Your task to perform on an android device: turn on translation in the chrome app Image 0: 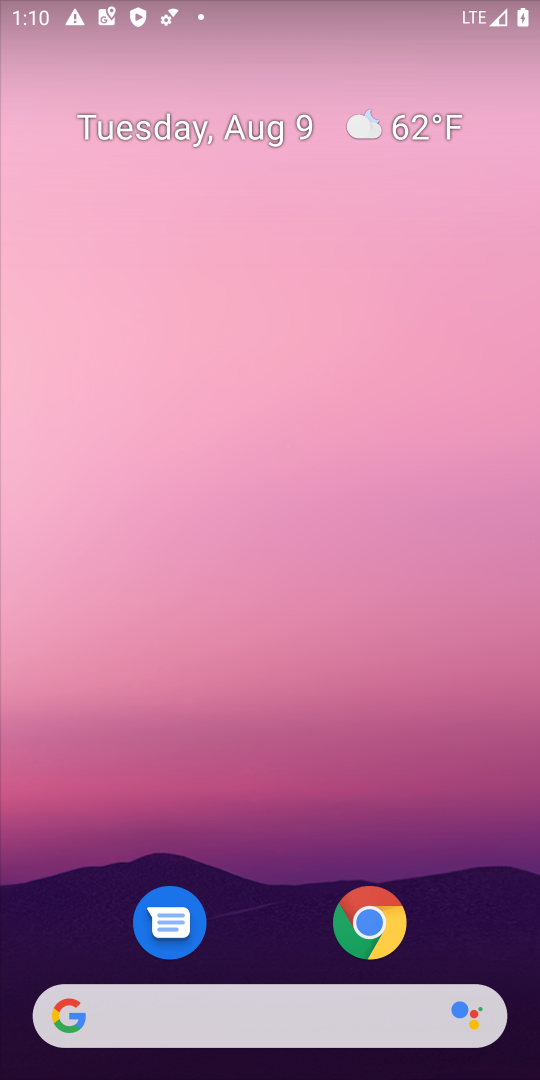
Step 0: drag from (289, 916) to (166, 121)
Your task to perform on an android device: turn on translation in the chrome app Image 1: 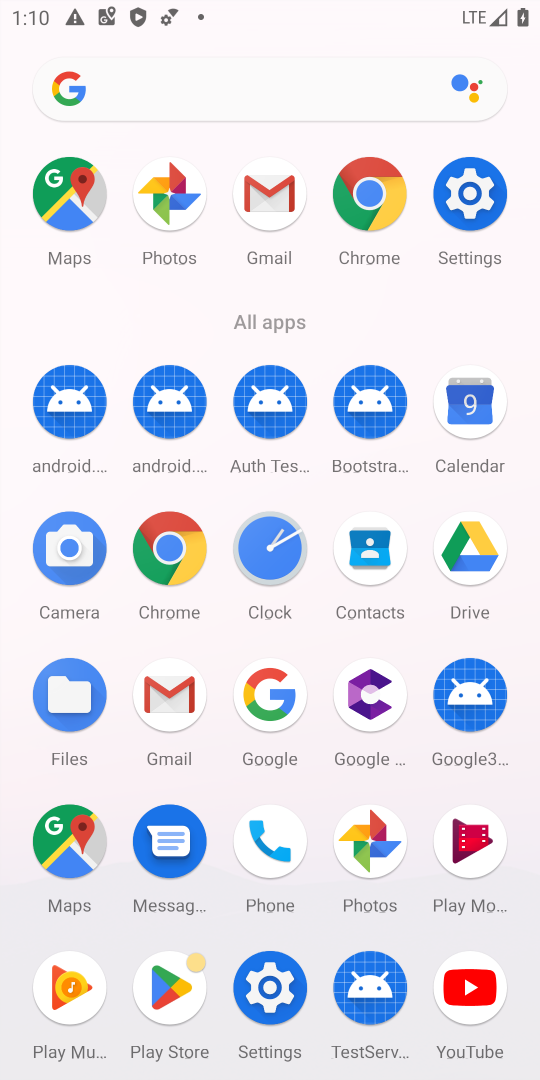
Step 1: click (162, 549)
Your task to perform on an android device: turn on translation in the chrome app Image 2: 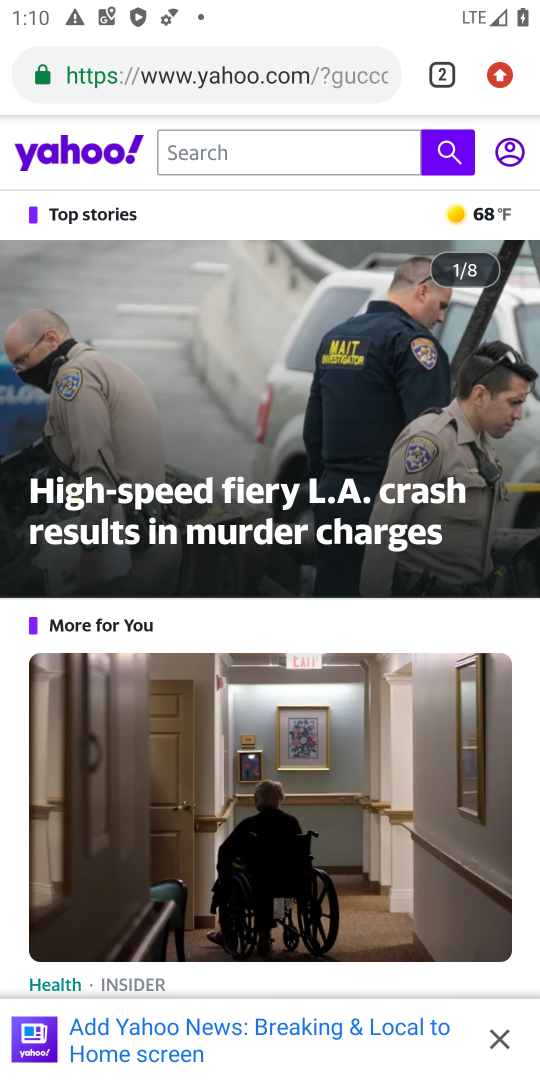
Step 2: task complete